Your task to perform on an android device: open app "Grab" (install if not already installed) and enter user name: "interspersion@gmail.com" and password: "aristocrats" Image 0: 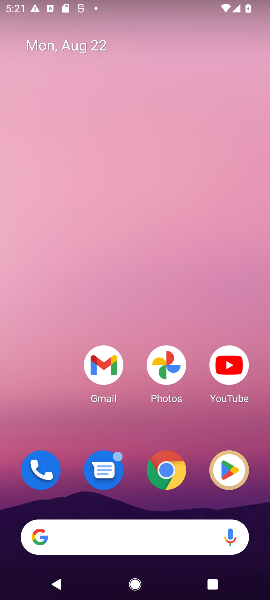
Step 0: click (237, 463)
Your task to perform on an android device: open app "Grab" (install if not already installed) and enter user name: "interspersion@gmail.com" and password: "aristocrats" Image 1: 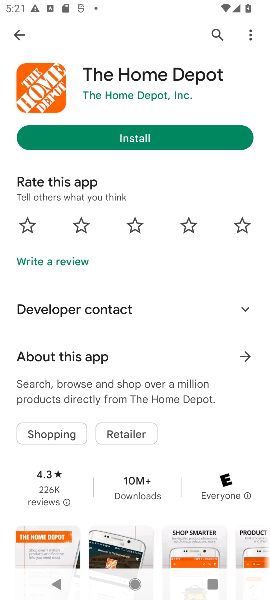
Step 1: click (7, 30)
Your task to perform on an android device: open app "Grab" (install if not already installed) and enter user name: "interspersion@gmail.com" and password: "aristocrats" Image 2: 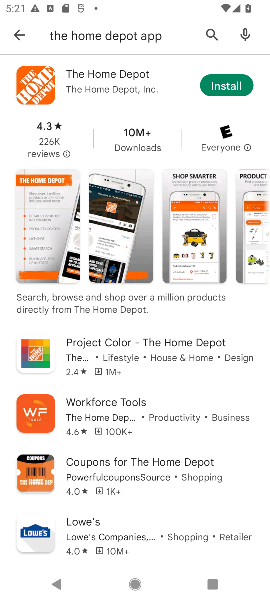
Step 2: click (19, 28)
Your task to perform on an android device: open app "Grab" (install if not already installed) and enter user name: "interspersion@gmail.com" and password: "aristocrats" Image 3: 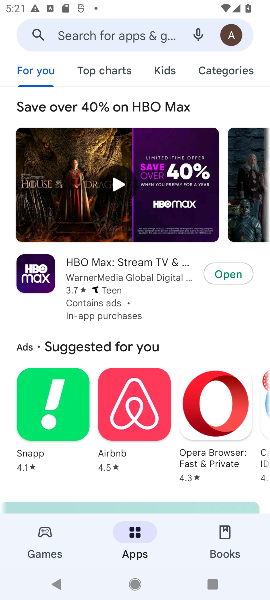
Step 3: click (80, 23)
Your task to perform on an android device: open app "Grab" (install if not already installed) and enter user name: "interspersion@gmail.com" and password: "aristocrats" Image 4: 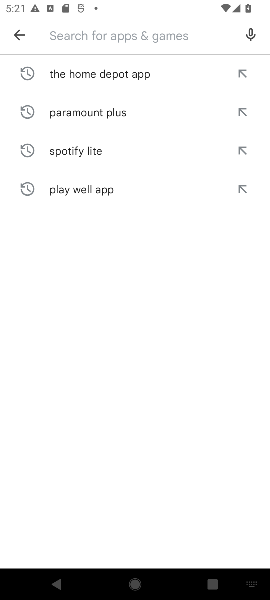
Step 4: click (118, 41)
Your task to perform on an android device: open app "Grab" (install if not already installed) and enter user name: "interspersion@gmail.com" and password: "aristocrats" Image 5: 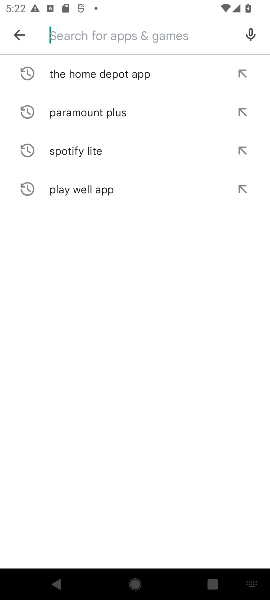
Step 5: type "Grab "
Your task to perform on an android device: open app "Grab" (install if not already installed) and enter user name: "interspersion@gmail.com" and password: "aristocrats" Image 6: 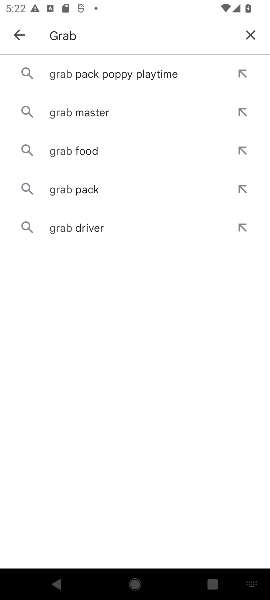
Step 6: click (94, 77)
Your task to perform on an android device: open app "Grab" (install if not already installed) and enter user name: "interspersion@gmail.com" and password: "aristocrats" Image 7: 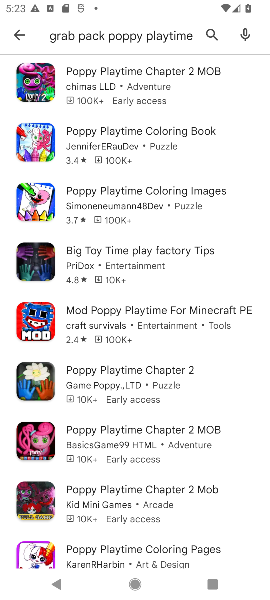
Step 7: task complete